Your task to perform on an android device: Go to display settings Image 0: 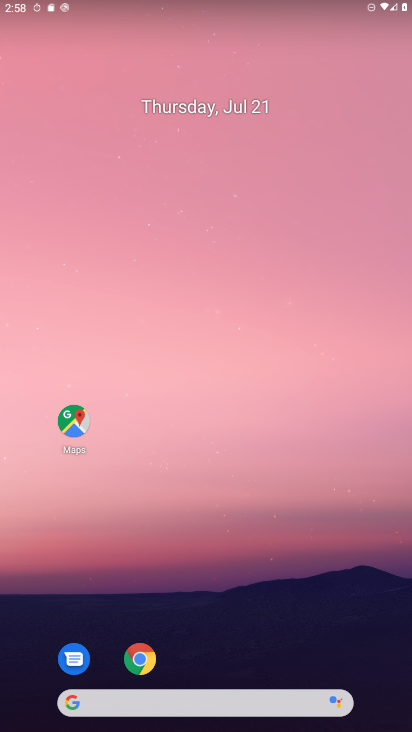
Step 0: drag from (47, 608) to (292, 137)
Your task to perform on an android device: Go to display settings Image 1: 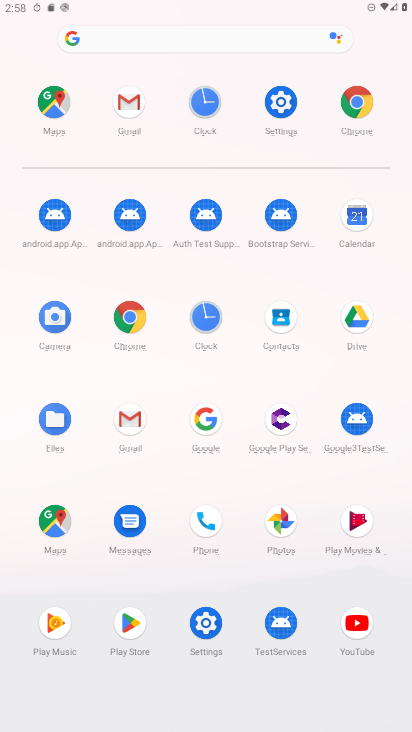
Step 1: click (284, 99)
Your task to perform on an android device: Go to display settings Image 2: 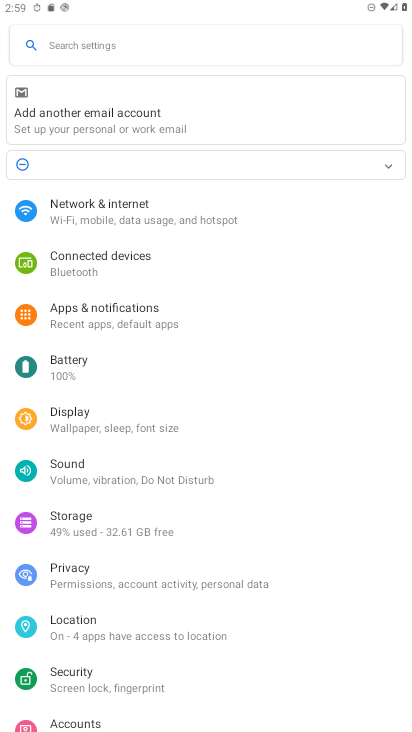
Step 2: click (95, 411)
Your task to perform on an android device: Go to display settings Image 3: 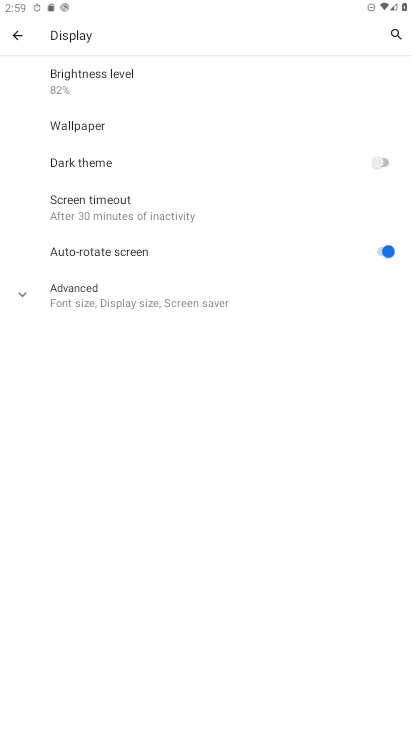
Step 3: task complete